Your task to perform on an android device: Check the news Image 0: 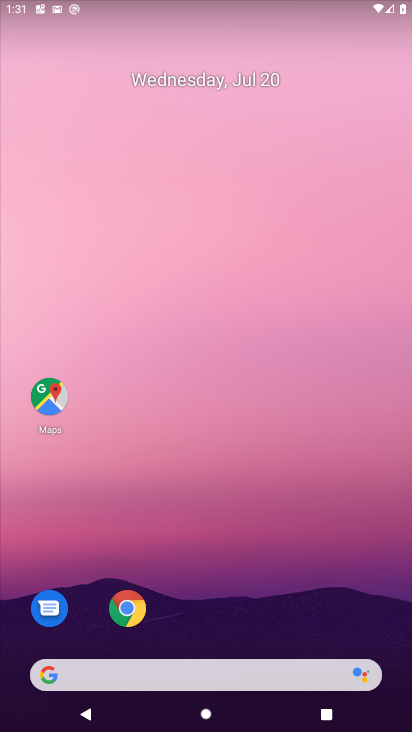
Step 0: drag from (225, 604) to (225, 200)
Your task to perform on an android device: Check the news Image 1: 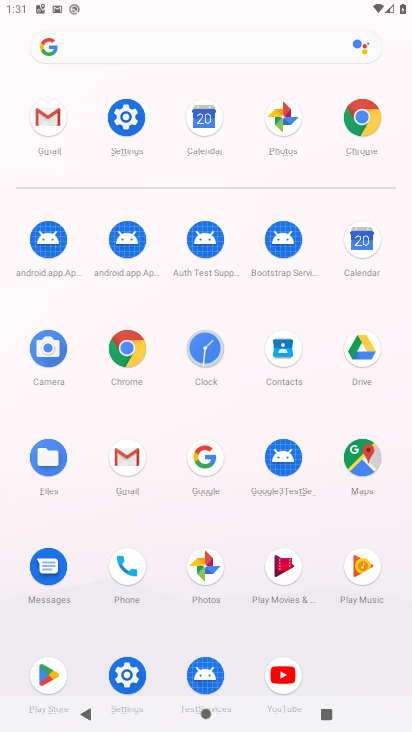
Step 1: click (200, 471)
Your task to perform on an android device: Check the news Image 2: 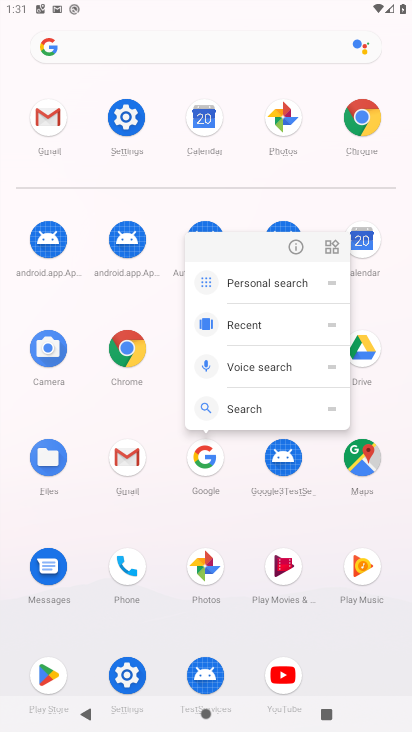
Step 2: click (197, 461)
Your task to perform on an android device: Check the news Image 3: 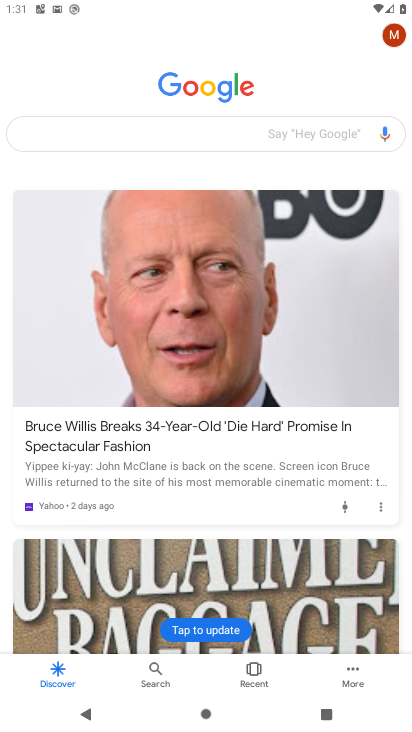
Step 3: click (154, 134)
Your task to perform on an android device: Check the news Image 4: 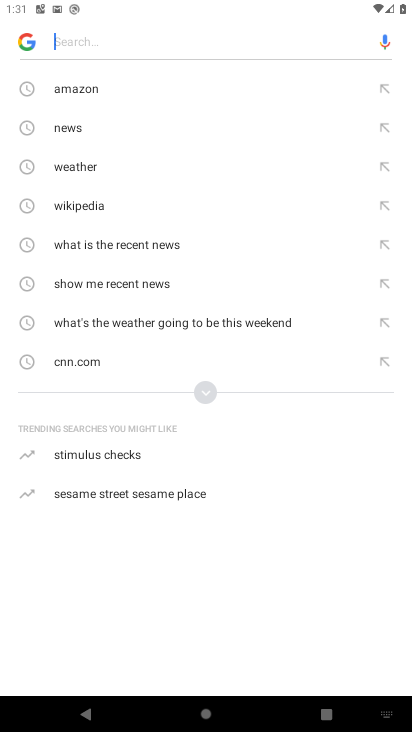
Step 4: click (61, 127)
Your task to perform on an android device: Check the news Image 5: 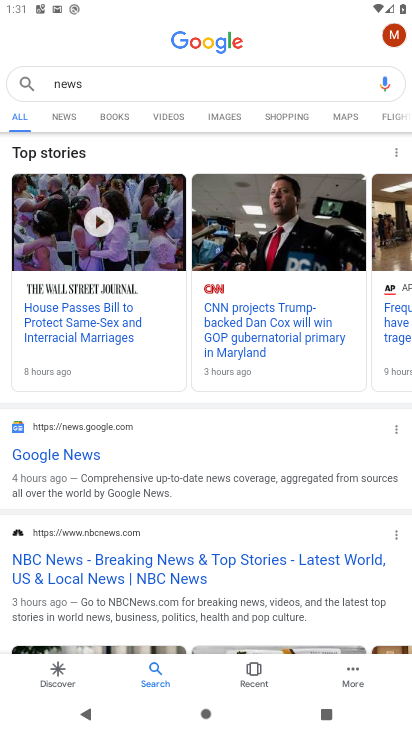
Step 5: click (44, 458)
Your task to perform on an android device: Check the news Image 6: 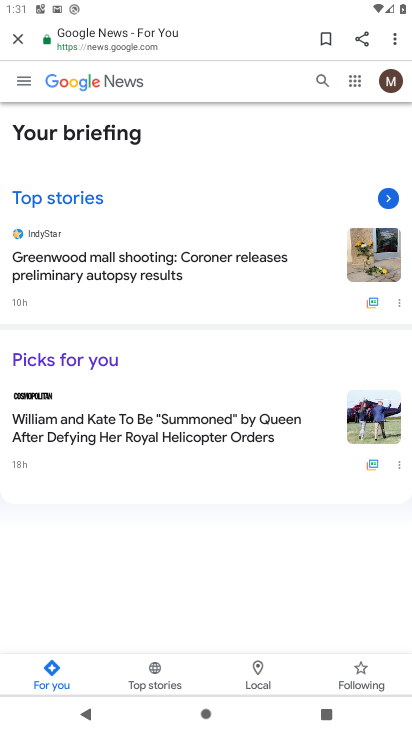
Step 6: task complete